Your task to perform on an android device: Open Maps and search for coffee Image 0: 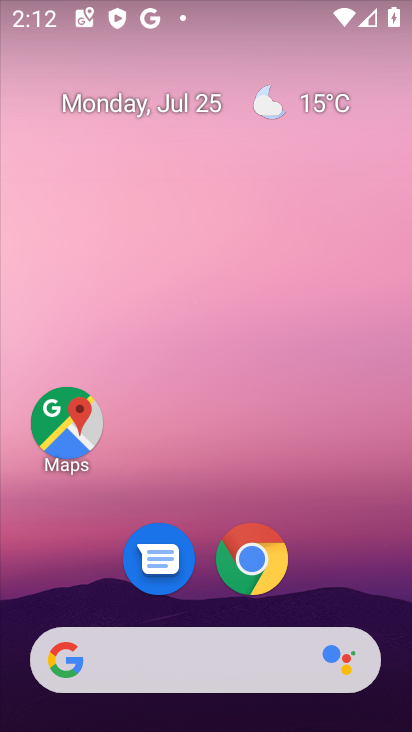
Step 0: click (71, 419)
Your task to perform on an android device: Open Maps and search for coffee Image 1: 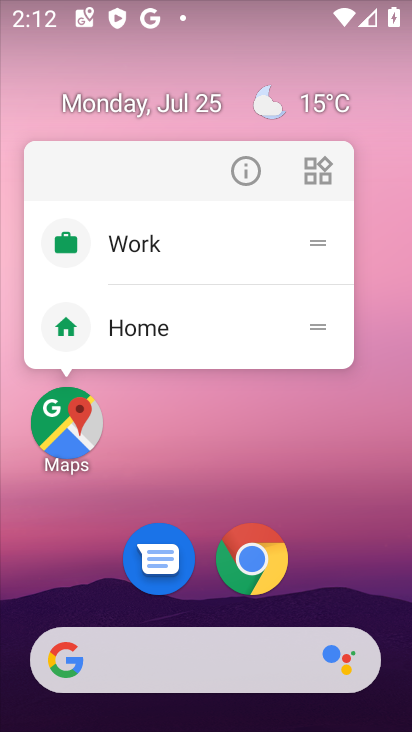
Step 1: click (60, 418)
Your task to perform on an android device: Open Maps and search for coffee Image 2: 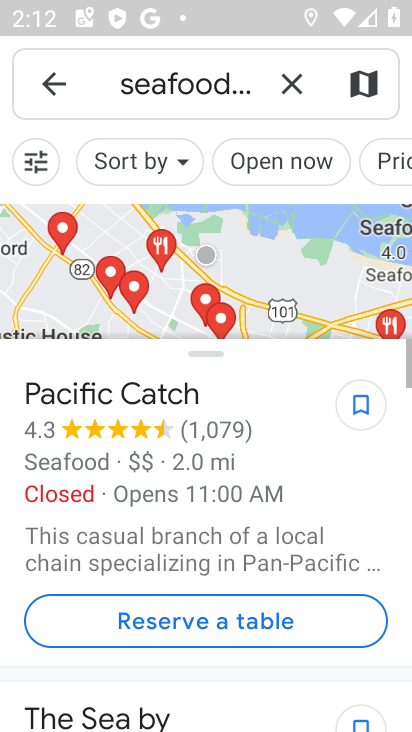
Step 2: click (277, 80)
Your task to perform on an android device: Open Maps and search for coffee Image 3: 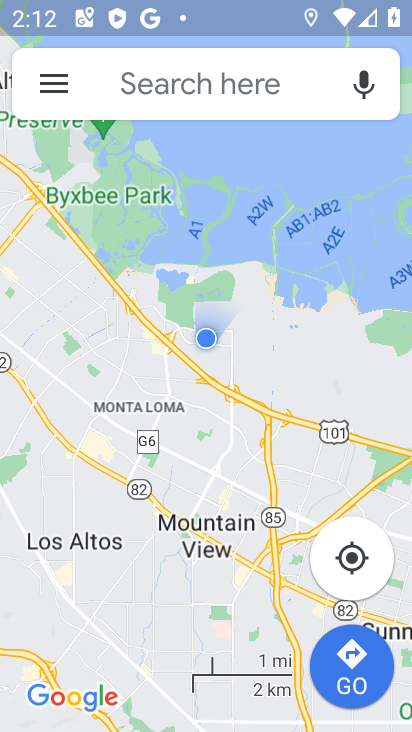
Step 3: click (217, 100)
Your task to perform on an android device: Open Maps and search for coffee Image 4: 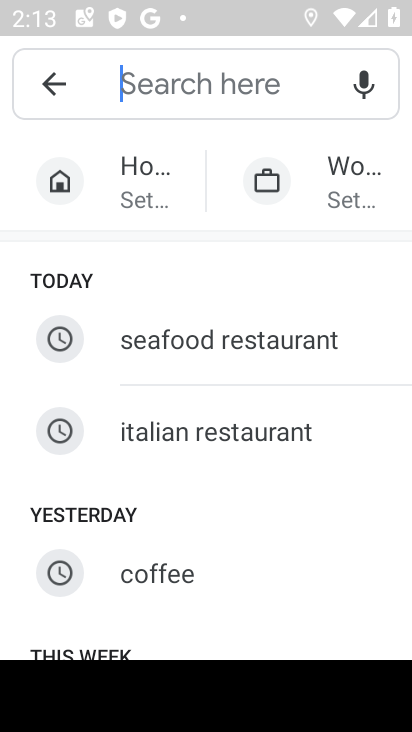
Step 4: type "coffee"
Your task to perform on an android device: Open Maps and search for coffee Image 5: 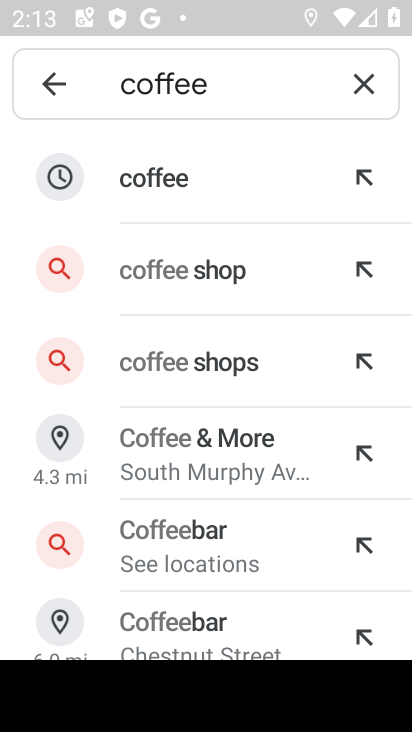
Step 5: click (229, 168)
Your task to perform on an android device: Open Maps and search for coffee Image 6: 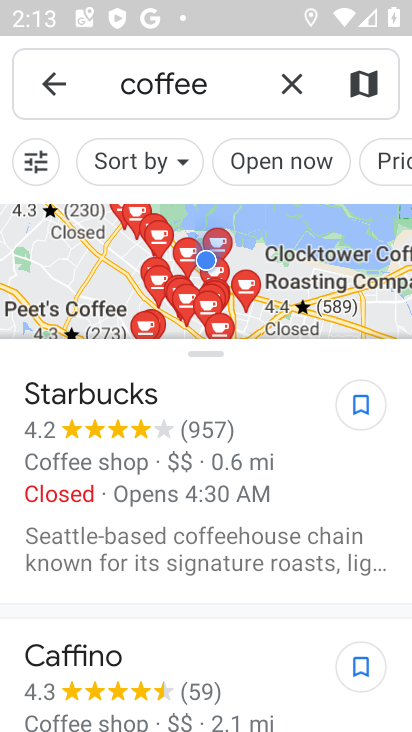
Step 6: task complete